Your task to perform on an android device: turn on showing notifications on the lock screen Image 0: 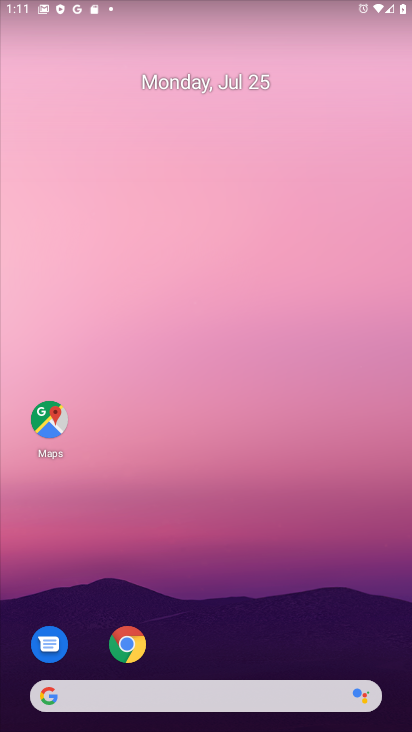
Step 0: drag from (270, 627) to (191, 15)
Your task to perform on an android device: turn on showing notifications on the lock screen Image 1: 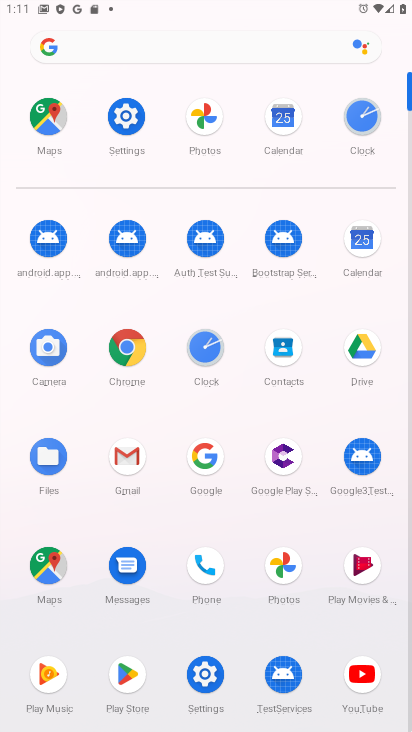
Step 1: click (114, 122)
Your task to perform on an android device: turn on showing notifications on the lock screen Image 2: 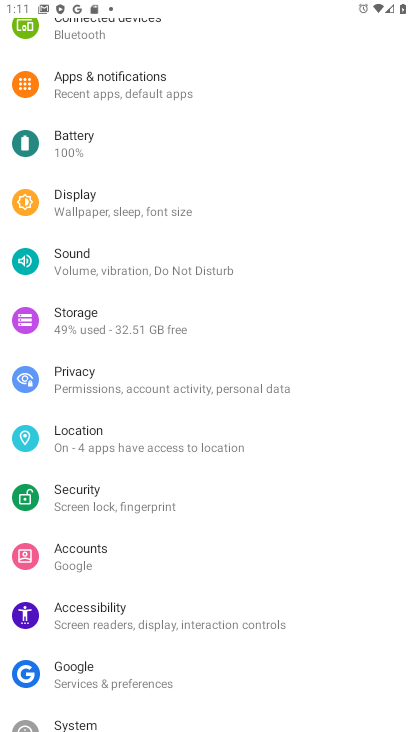
Step 2: click (125, 91)
Your task to perform on an android device: turn on showing notifications on the lock screen Image 3: 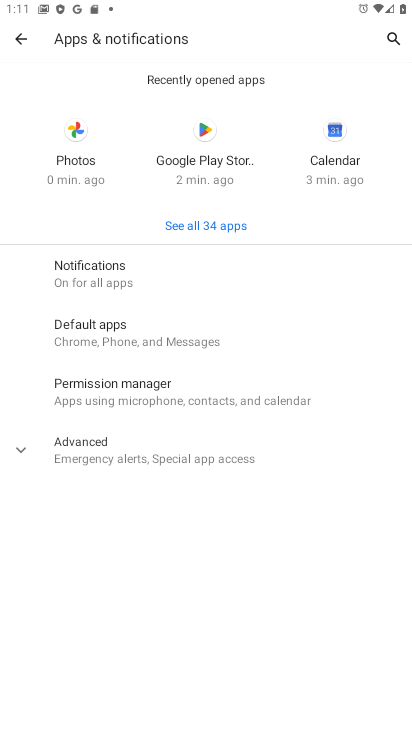
Step 3: click (109, 276)
Your task to perform on an android device: turn on showing notifications on the lock screen Image 4: 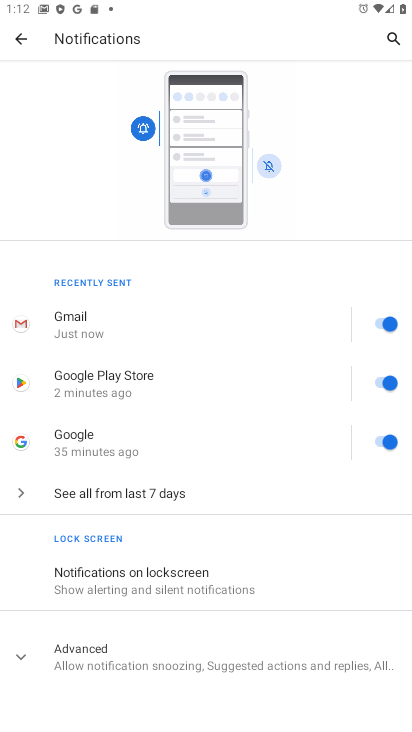
Step 4: click (137, 590)
Your task to perform on an android device: turn on showing notifications on the lock screen Image 5: 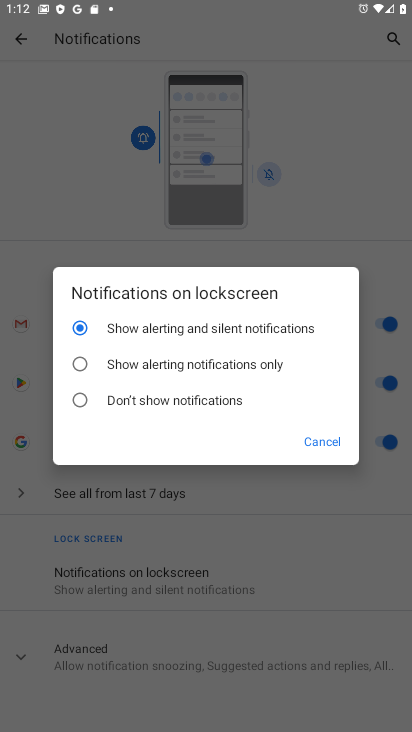
Step 5: click (235, 330)
Your task to perform on an android device: turn on showing notifications on the lock screen Image 6: 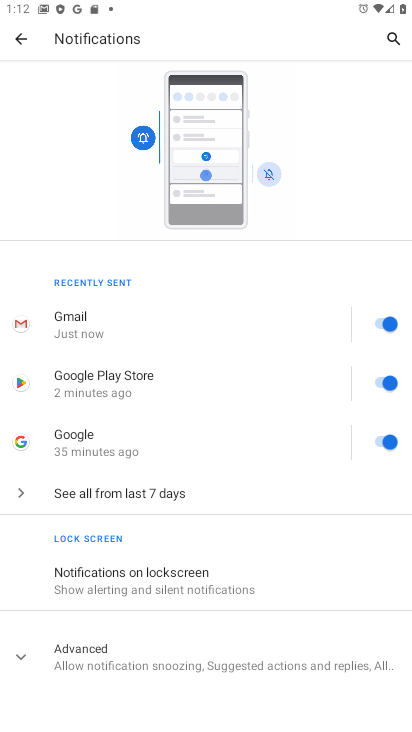
Step 6: task complete